Your task to perform on an android device: turn off smart reply in the gmail app Image 0: 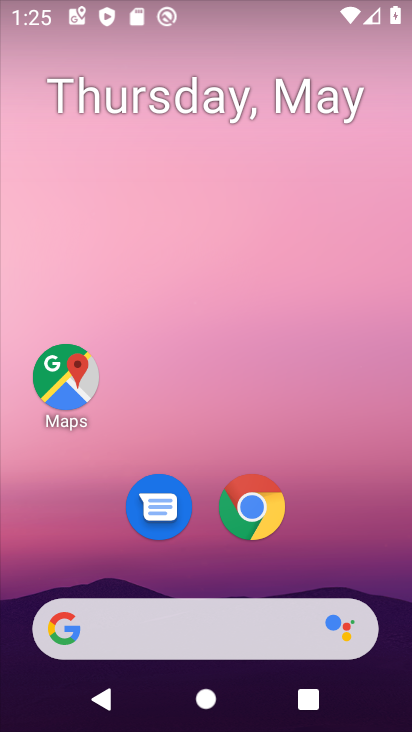
Step 0: drag from (184, 601) to (291, 0)
Your task to perform on an android device: turn off smart reply in the gmail app Image 1: 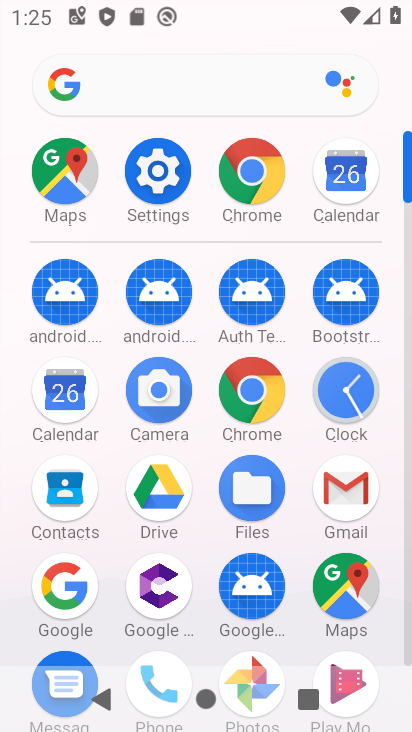
Step 1: click (348, 493)
Your task to perform on an android device: turn off smart reply in the gmail app Image 2: 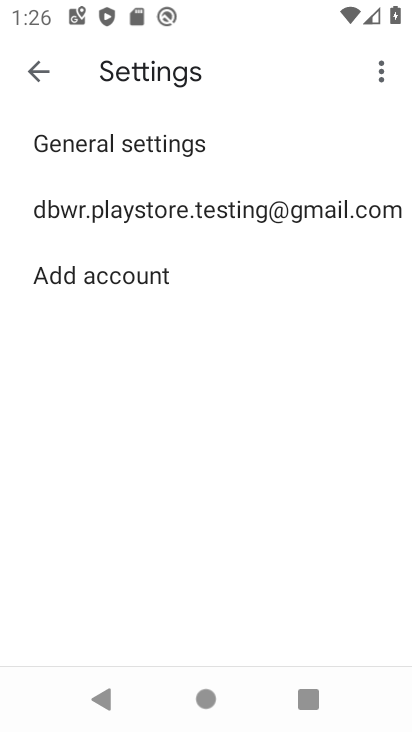
Step 2: click (206, 209)
Your task to perform on an android device: turn off smart reply in the gmail app Image 3: 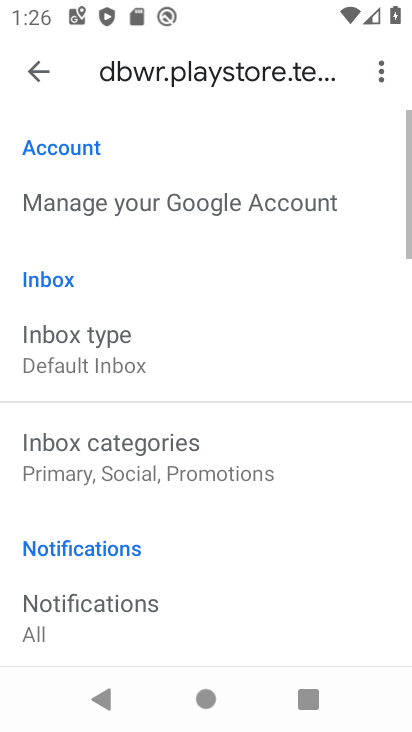
Step 3: drag from (165, 573) to (210, 106)
Your task to perform on an android device: turn off smart reply in the gmail app Image 4: 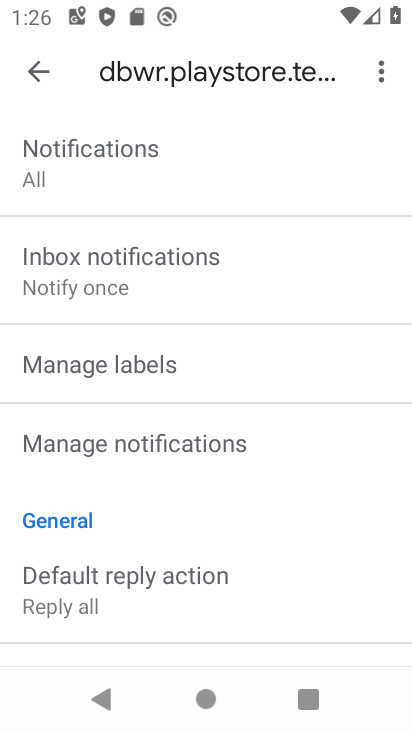
Step 4: drag from (256, 606) to (276, 266)
Your task to perform on an android device: turn off smart reply in the gmail app Image 5: 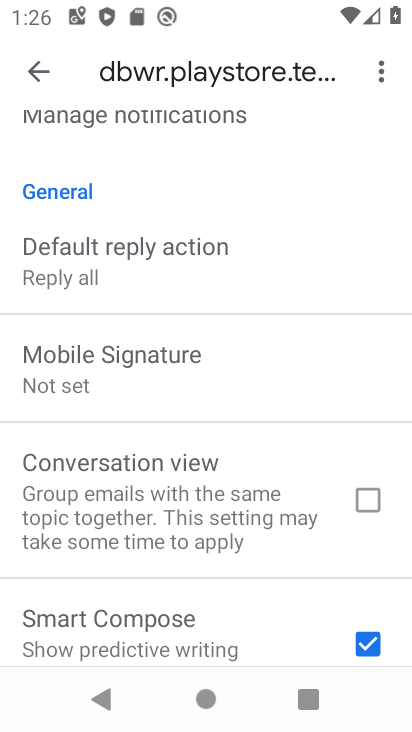
Step 5: drag from (270, 639) to (265, 329)
Your task to perform on an android device: turn off smart reply in the gmail app Image 6: 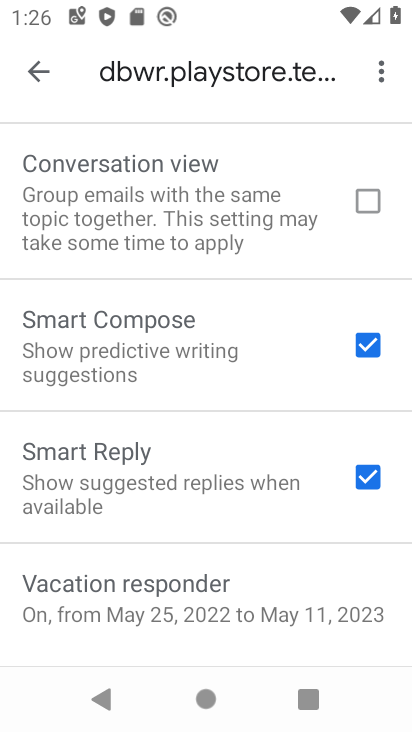
Step 6: click (378, 474)
Your task to perform on an android device: turn off smart reply in the gmail app Image 7: 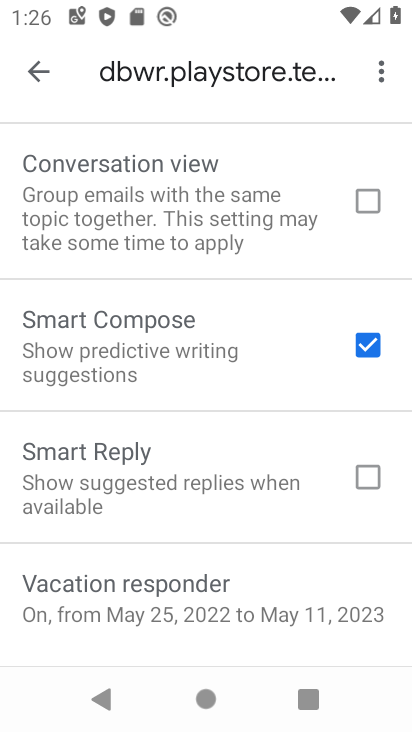
Step 7: task complete